Your task to perform on an android device: Look up the best rated 5.1 home theater speakers on Walmart. Image 0: 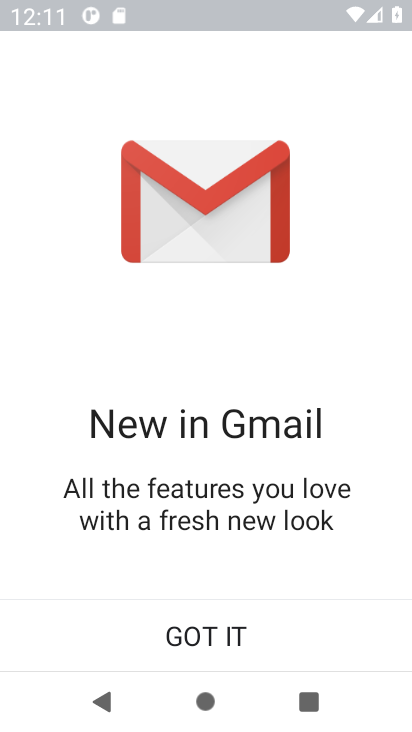
Step 0: press home button
Your task to perform on an android device: Look up the best rated 5.1 home theater speakers on Walmart. Image 1: 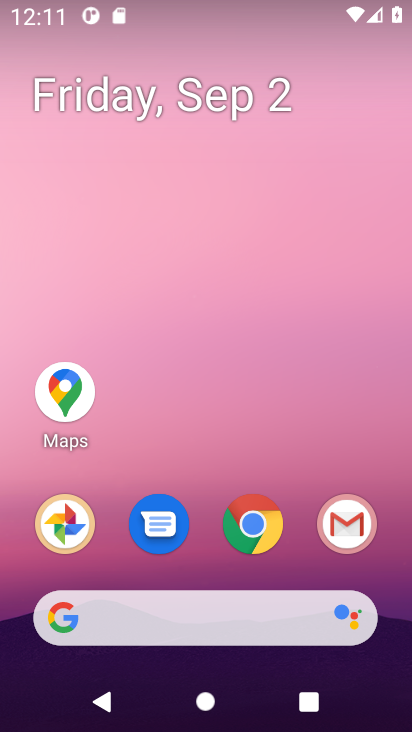
Step 1: click (236, 618)
Your task to perform on an android device: Look up the best rated 5.1 home theater speakers on Walmart. Image 2: 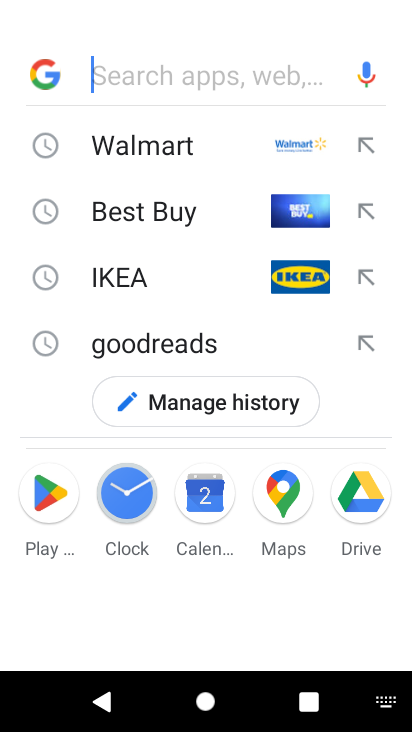
Step 2: press enter
Your task to perform on an android device: Look up the best rated 5.1 home theater speakers on Walmart. Image 3: 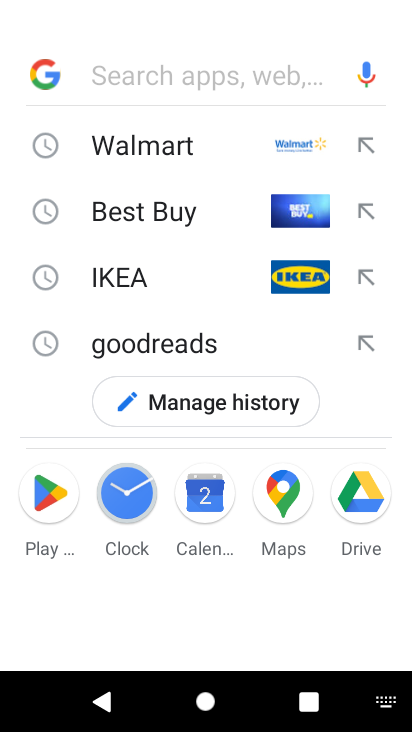
Step 3: type "walmart"
Your task to perform on an android device: Look up the best rated 5.1 home theater speakers on Walmart. Image 4: 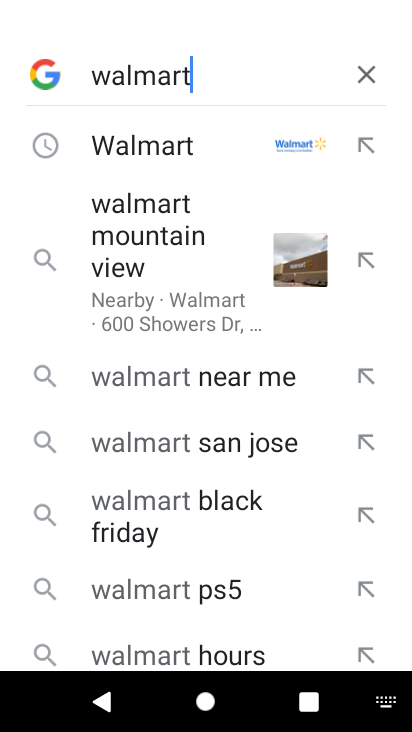
Step 4: click (195, 141)
Your task to perform on an android device: Look up the best rated 5.1 home theater speakers on Walmart. Image 5: 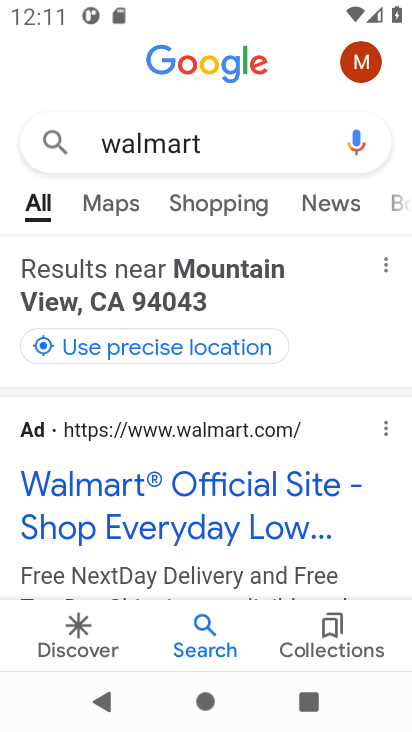
Step 5: click (217, 495)
Your task to perform on an android device: Look up the best rated 5.1 home theater speakers on Walmart. Image 6: 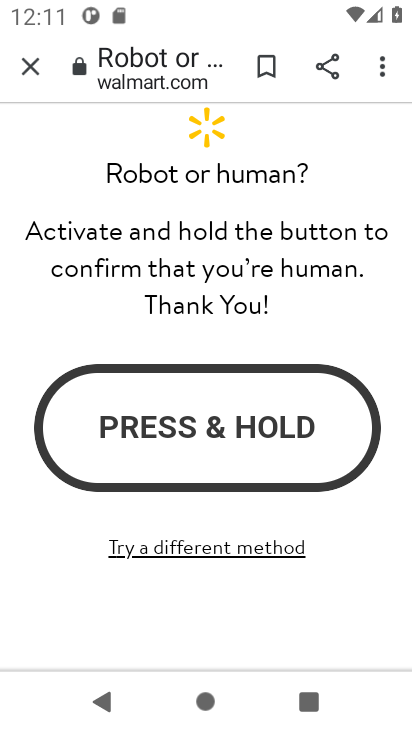
Step 6: click (233, 420)
Your task to perform on an android device: Look up the best rated 5.1 home theater speakers on Walmart. Image 7: 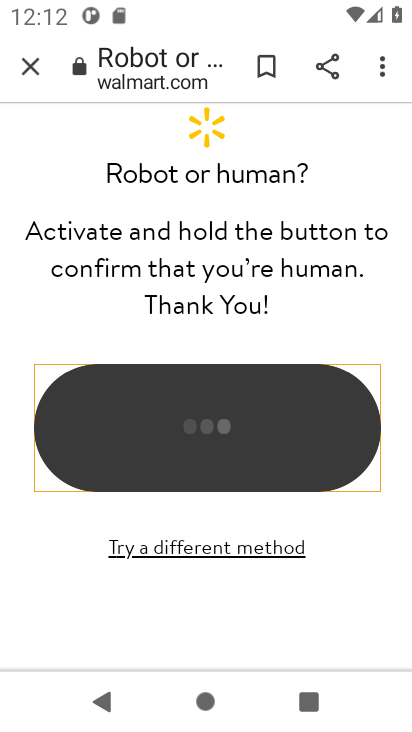
Step 7: click (221, 416)
Your task to perform on an android device: Look up the best rated 5.1 home theater speakers on Walmart. Image 8: 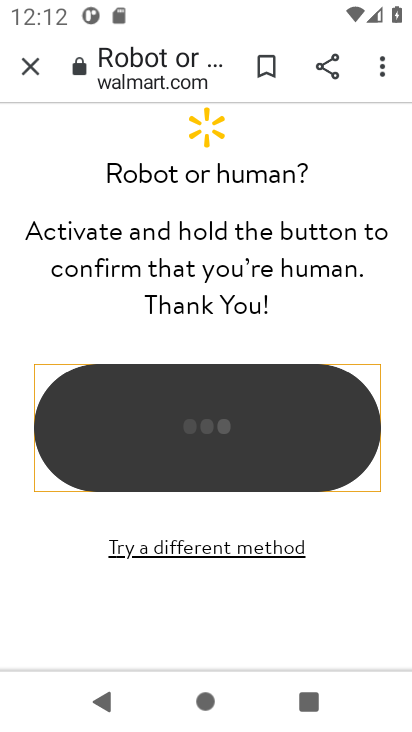
Step 8: task complete